Your task to perform on an android device: open app "Facebook Lite" (install if not already installed) Image 0: 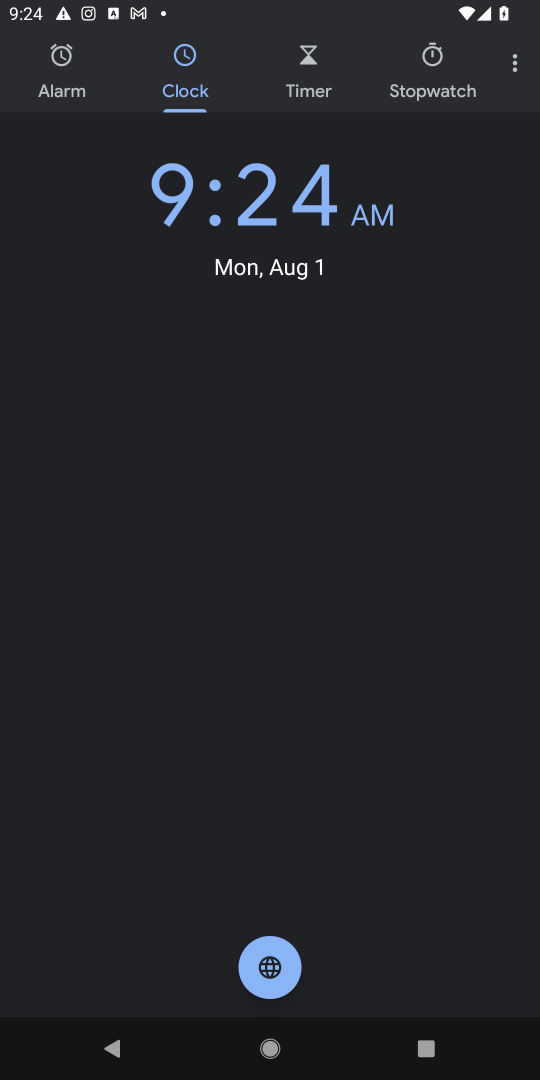
Step 0: press home button
Your task to perform on an android device: open app "Facebook Lite" (install if not already installed) Image 1: 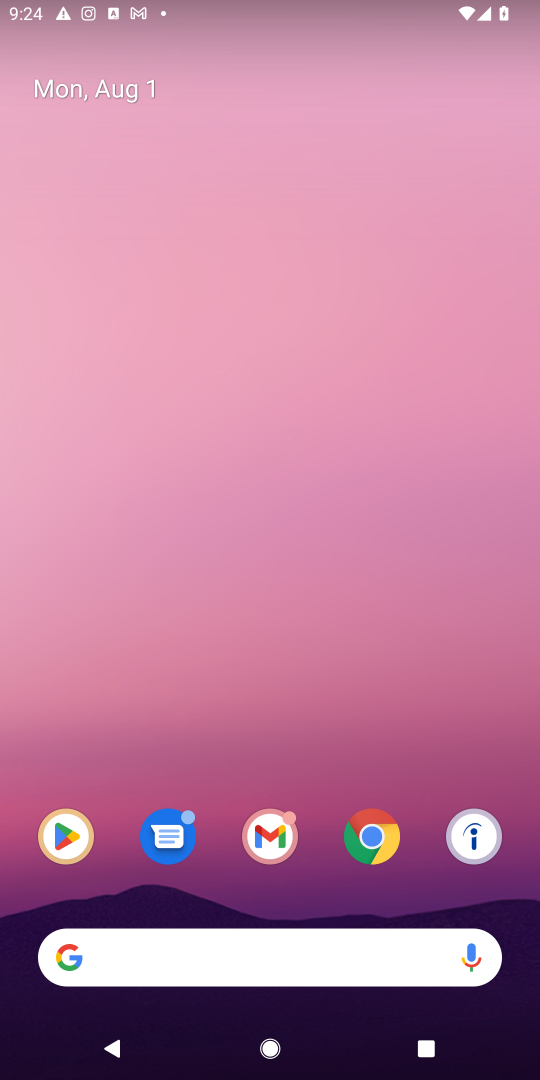
Step 1: click (69, 832)
Your task to perform on an android device: open app "Facebook Lite" (install if not already installed) Image 2: 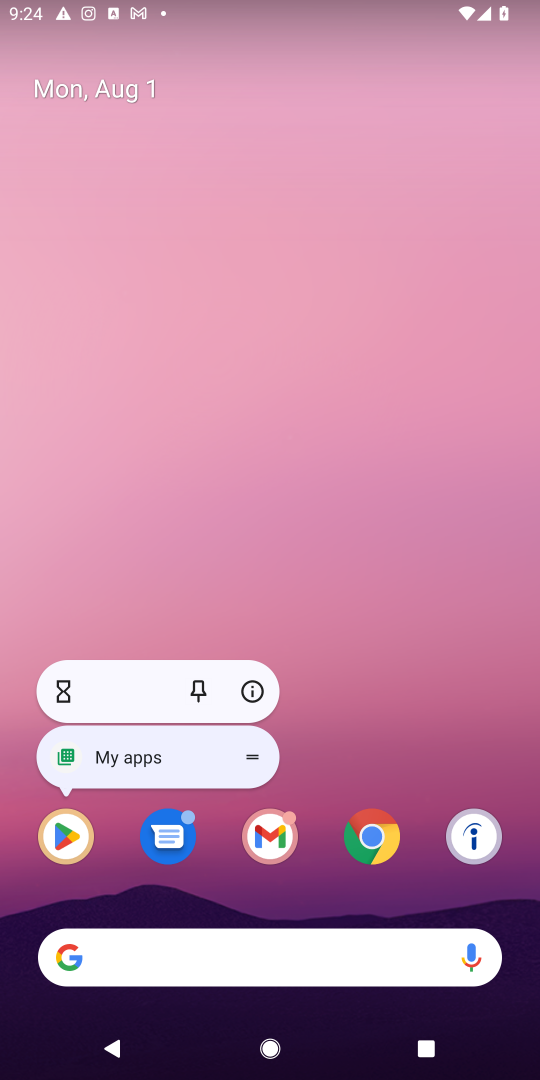
Step 2: click (62, 846)
Your task to perform on an android device: open app "Facebook Lite" (install if not already installed) Image 3: 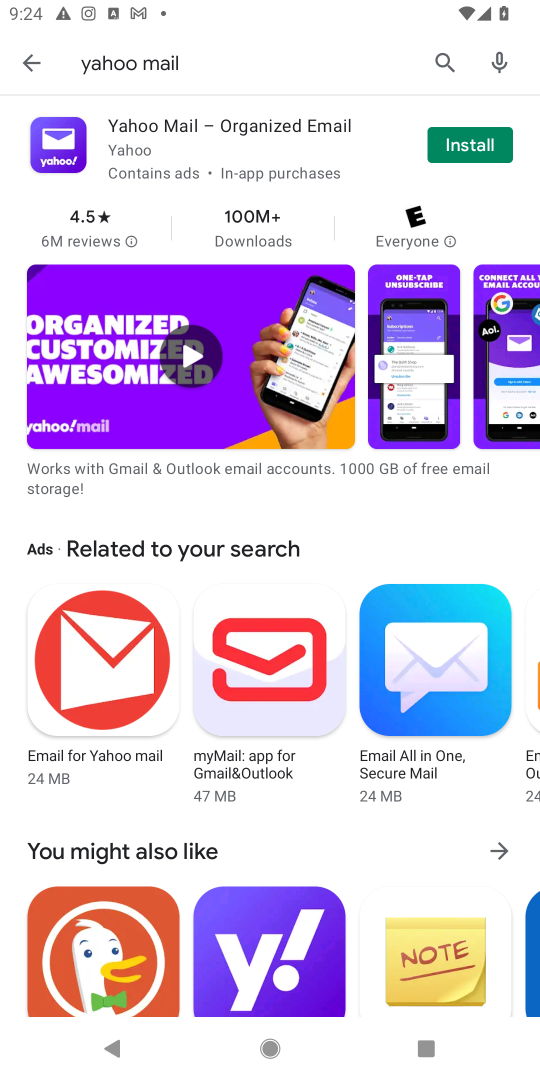
Step 3: click (449, 50)
Your task to perform on an android device: open app "Facebook Lite" (install if not already installed) Image 4: 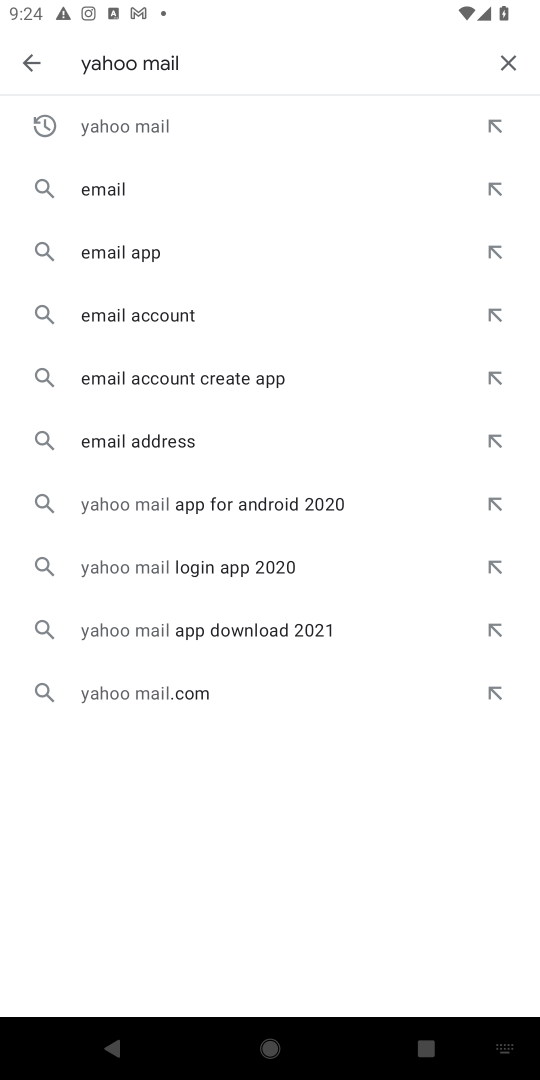
Step 4: click (499, 52)
Your task to perform on an android device: open app "Facebook Lite" (install if not already installed) Image 5: 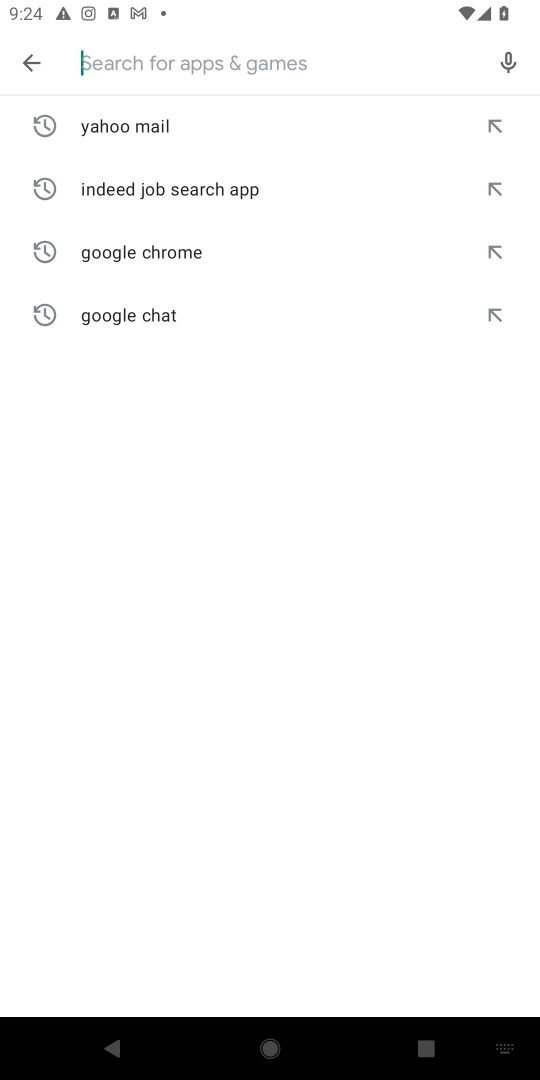
Step 5: type "Facebook Lite"
Your task to perform on an android device: open app "Facebook Lite" (install if not already installed) Image 6: 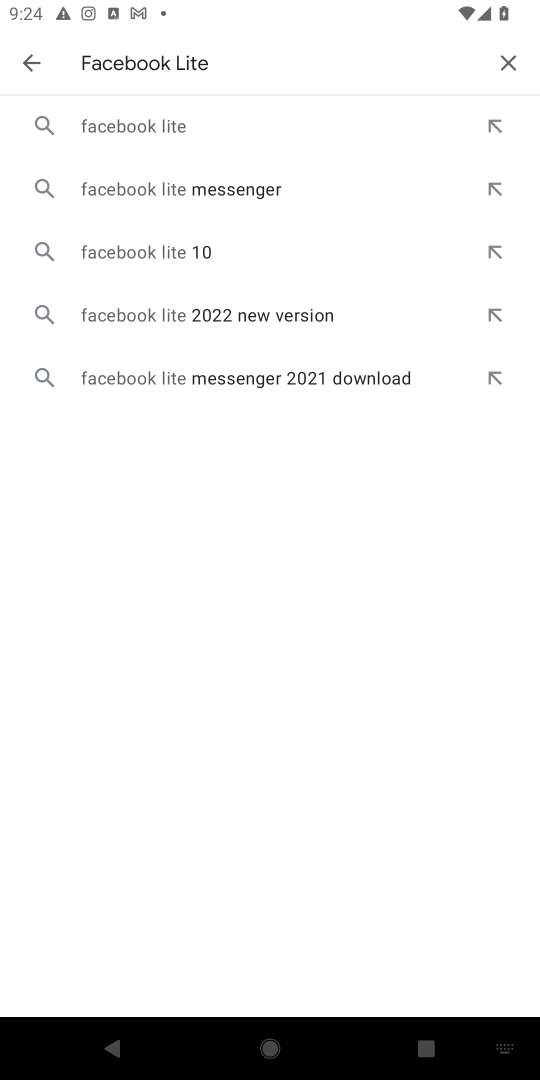
Step 6: click (85, 118)
Your task to perform on an android device: open app "Facebook Lite" (install if not already installed) Image 7: 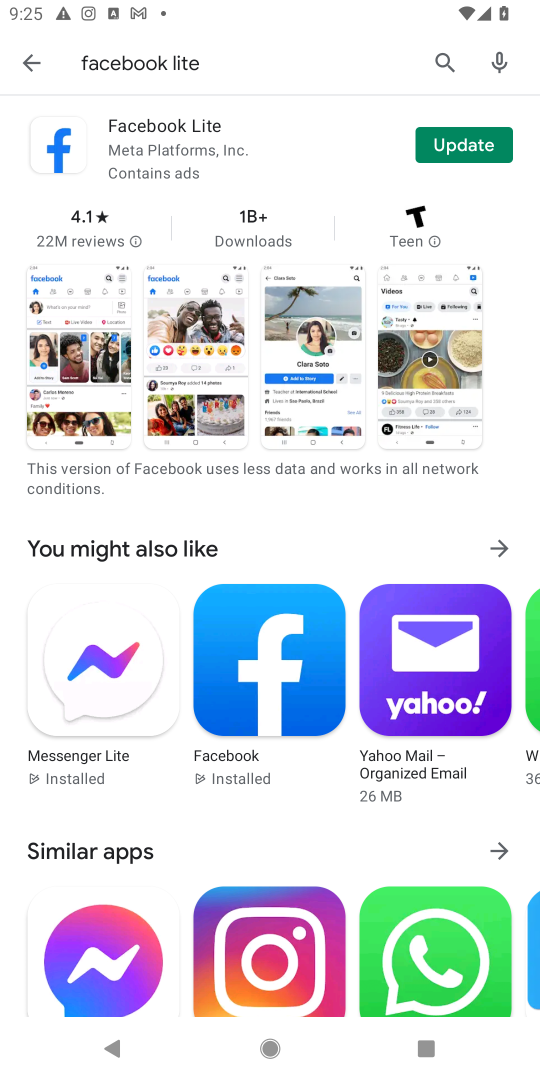
Step 7: click (154, 130)
Your task to perform on an android device: open app "Facebook Lite" (install if not already installed) Image 8: 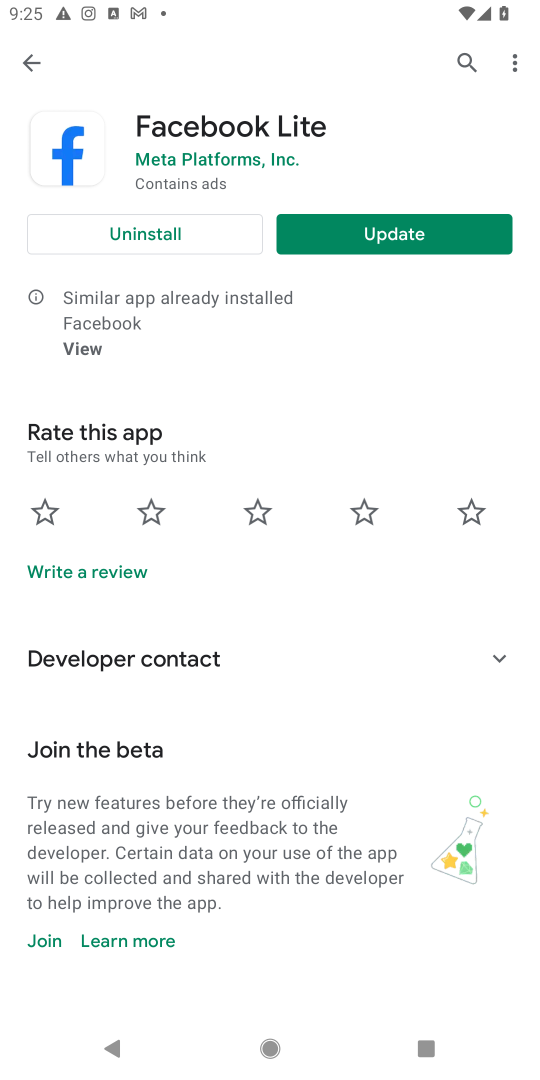
Step 8: task complete